Your task to perform on an android device: add a contact Image 0: 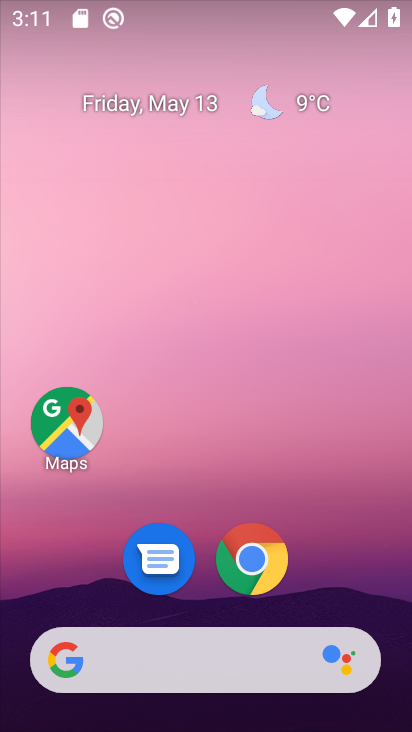
Step 0: drag from (206, 549) to (309, 139)
Your task to perform on an android device: add a contact Image 1: 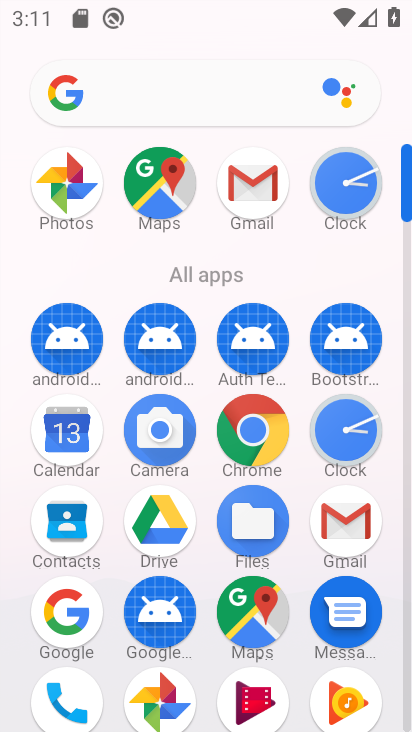
Step 1: click (62, 543)
Your task to perform on an android device: add a contact Image 2: 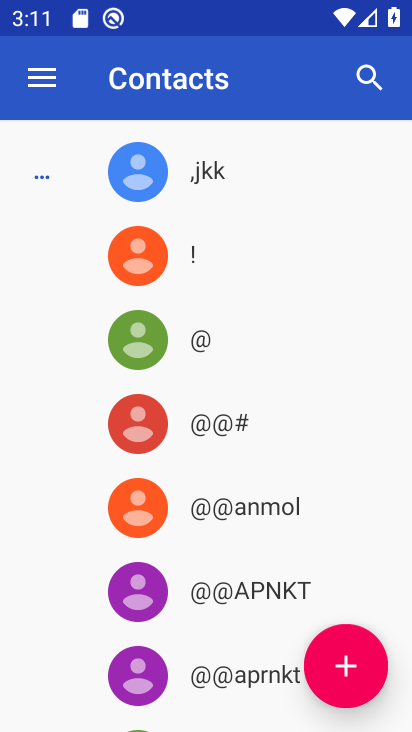
Step 2: click (361, 686)
Your task to perform on an android device: add a contact Image 3: 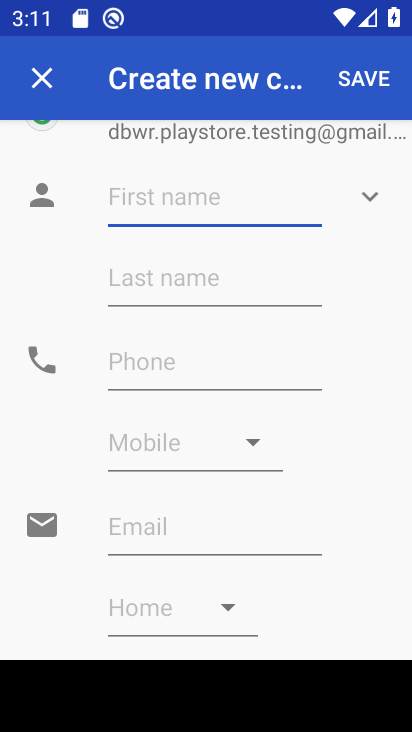
Step 3: click (152, 188)
Your task to perform on an android device: add a contact Image 4: 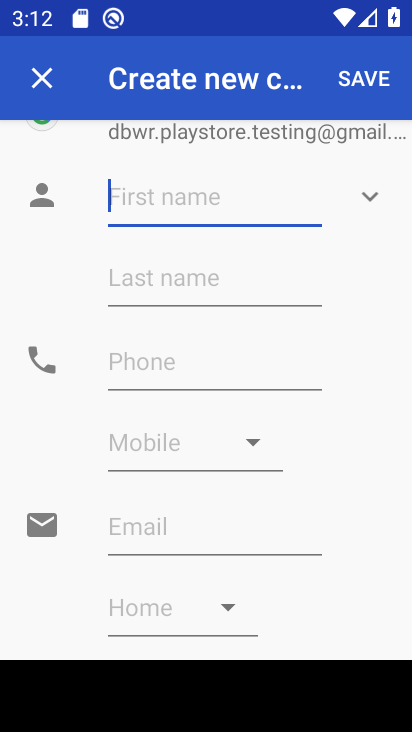
Step 4: type "gcg"
Your task to perform on an android device: add a contact Image 5: 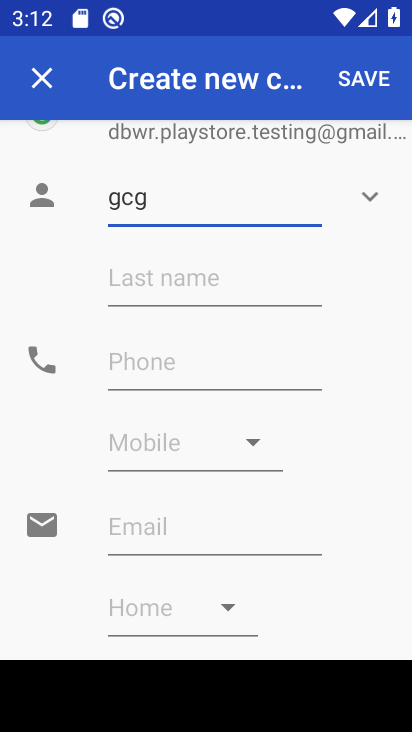
Step 5: click (203, 359)
Your task to perform on an android device: add a contact Image 6: 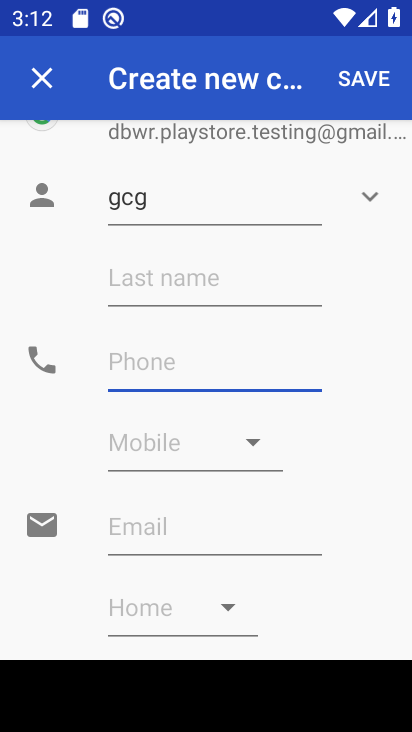
Step 6: type "7676"
Your task to perform on an android device: add a contact Image 7: 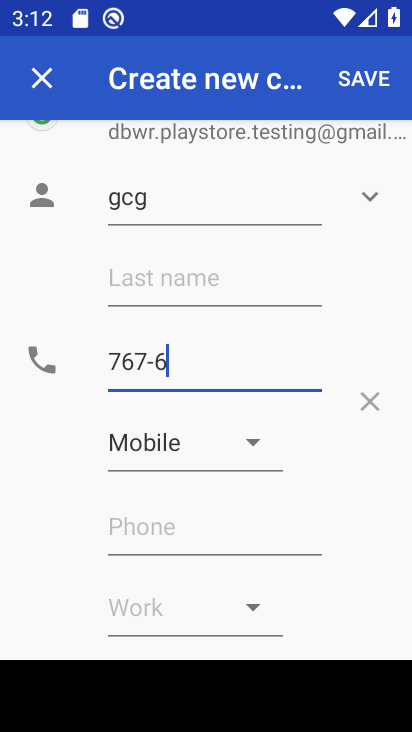
Step 7: click (355, 75)
Your task to perform on an android device: add a contact Image 8: 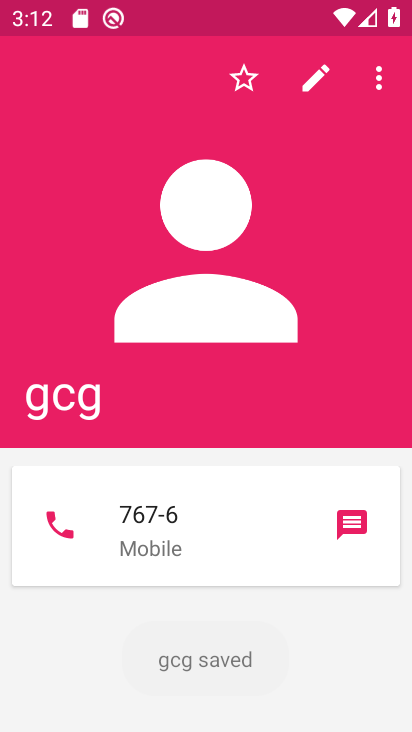
Step 8: task complete